Your task to perform on an android device: Open Google Maps and go to "Timeline" Image 0: 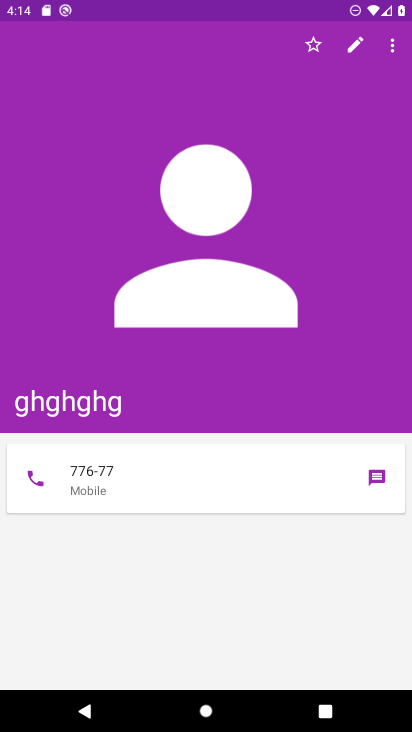
Step 0: press home button
Your task to perform on an android device: Open Google Maps and go to "Timeline" Image 1: 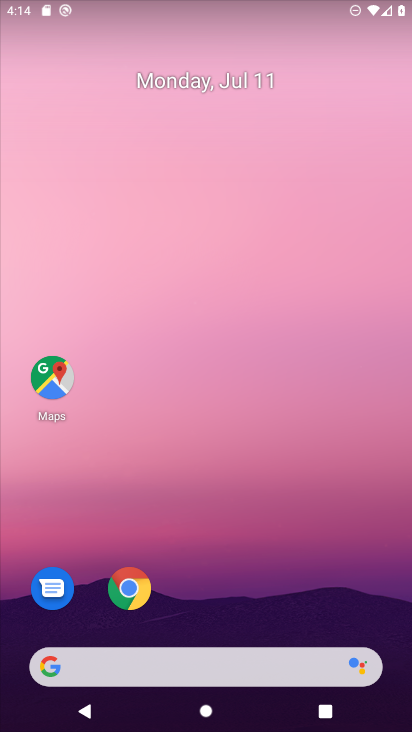
Step 1: click (53, 386)
Your task to perform on an android device: Open Google Maps and go to "Timeline" Image 2: 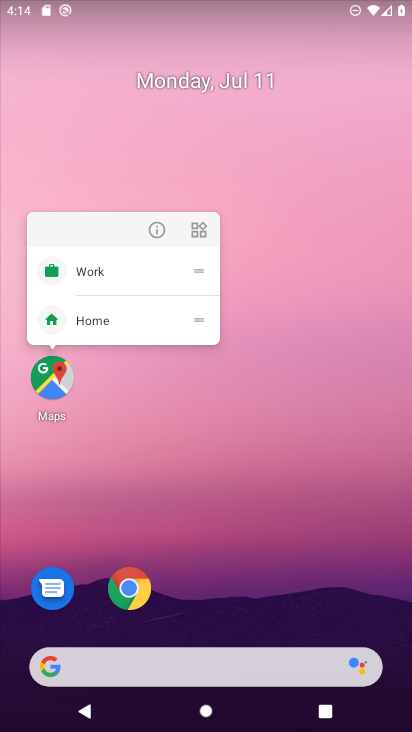
Step 2: click (53, 386)
Your task to perform on an android device: Open Google Maps and go to "Timeline" Image 3: 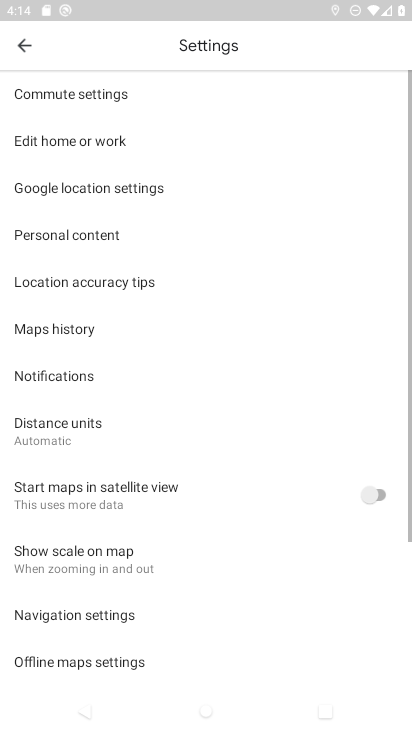
Step 3: click (24, 46)
Your task to perform on an android device: Open Google Maps and go to "Timeline" Image 4: 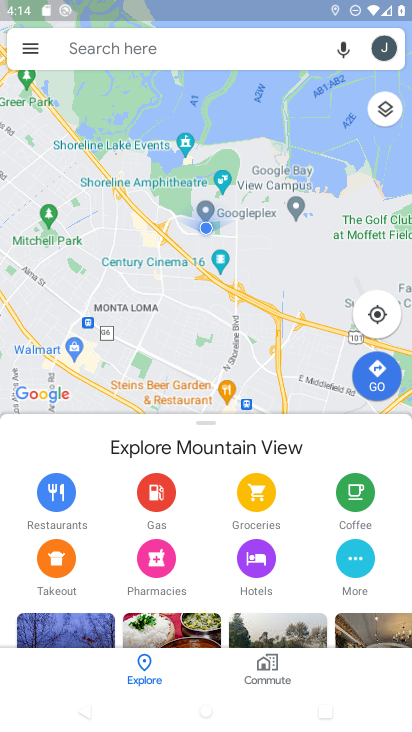
Step 4: click (24, 46)
Your task to perform on an android device: Open Google Maps and go to "Timeline" Image 5: 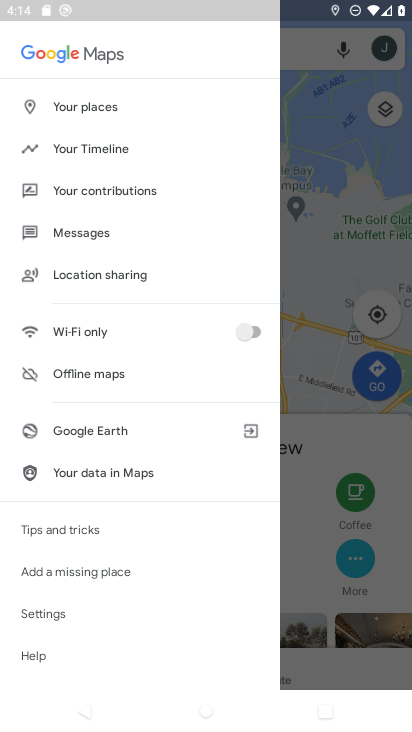
Step 5: click (123, 147)
Your task to perform on an android device: Open Google Maps and go to "Timeline" Image 6: 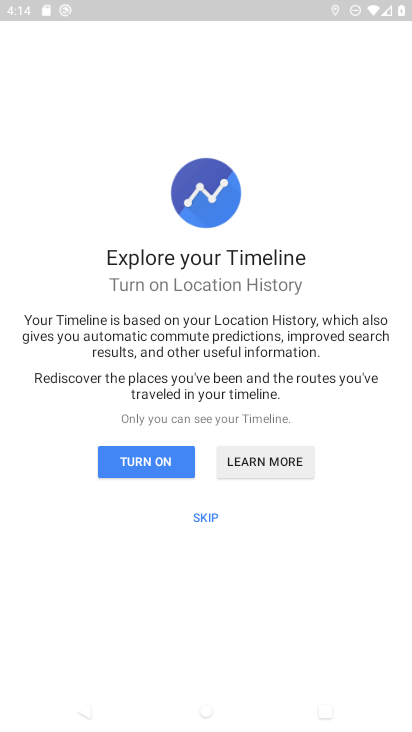
Step 6: click (214, 513)
Your task to perform on an android device: Open Google Maps and go to "Timeline" Image 7: 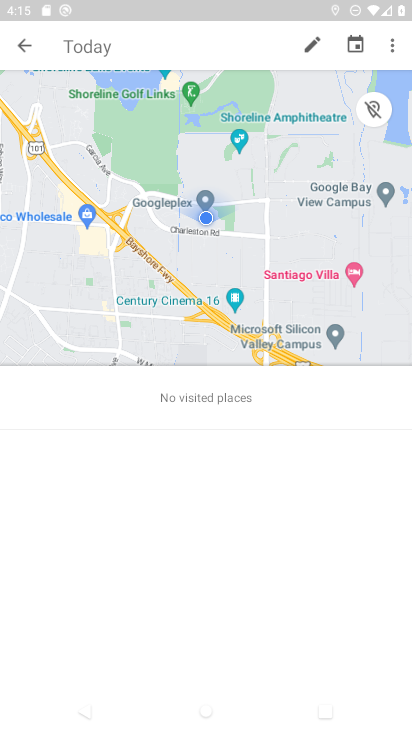
Step 7: task complete